Your task to perform on an android device: change the clock display to analog Image 0: 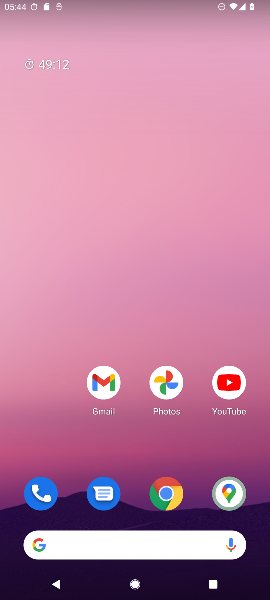
Step 0: press home button
Your task to perform on an android device: change the clock display to analog Image 1: 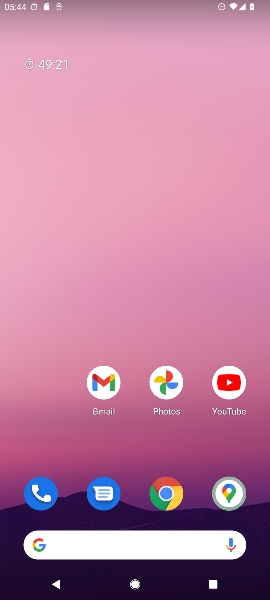
Step 1: drag from (52, 443) to (39, 143)
Your task to perform on an android device: change the clock display to analog Image 2: 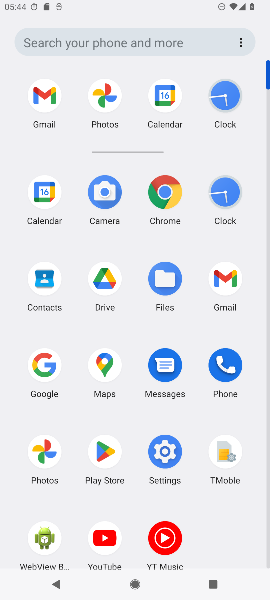
Step 2: click (231, 192)
Your task to perform on an android device: change the clock display to analog Image 3: 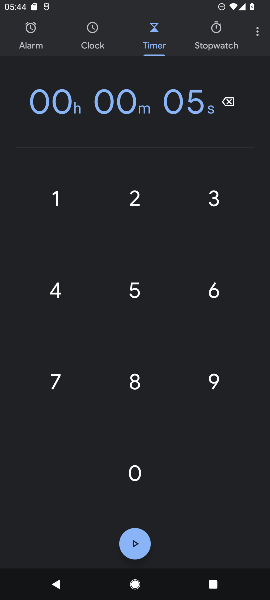
Step 3: click (259, 33)
Your task to perform on an android device: change the clock display to analog Image 4: 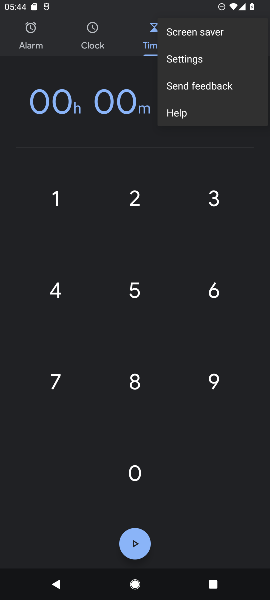
Step 4: click (213, 67)
Your task to perform on an android device: change the clock display to analog Image 5: 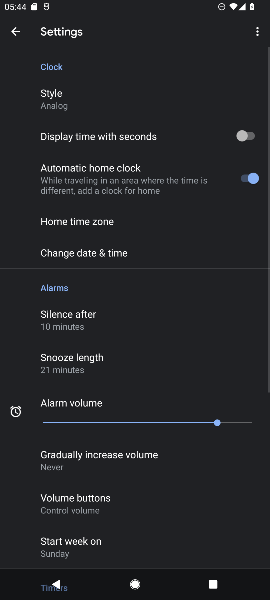
Step 5: drag from (212, 258) to (220, 143)
Your task to perform on an android device: change the clock display to analog Image 6: 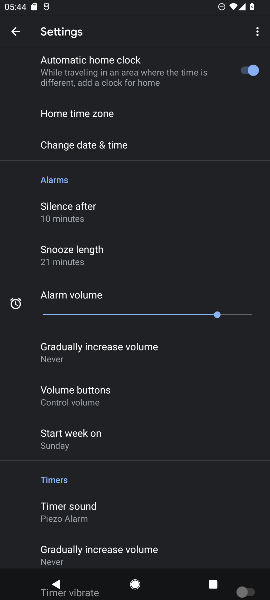
Step 6: drag from (202, 357) to (208, 244)
Your task to perform on an android device: change the clock display to analog Image 7: 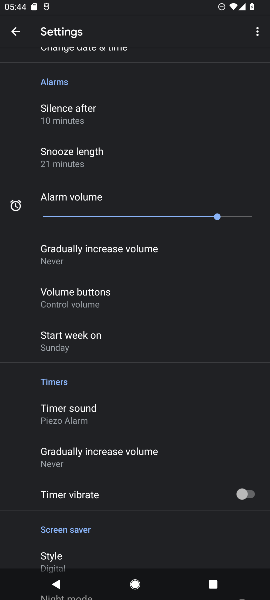
Step 7: drag from (187, 417) to (204, 289)
Your task to perform on an android device: change the clock display to analog Image 8: 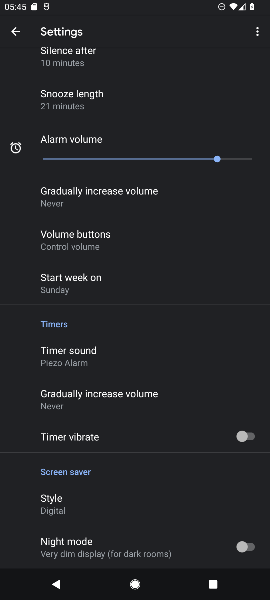
Step 8: drag from (200, 210) to (202, 297)
Your task to perform on an android device: change the clock display to analog Image 9: 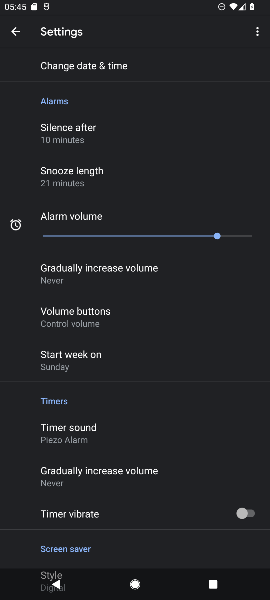
Step 9: drag from (227, 172) to (232, 274)
Your task to perform on an android device: change the clock display to analog Image 10: 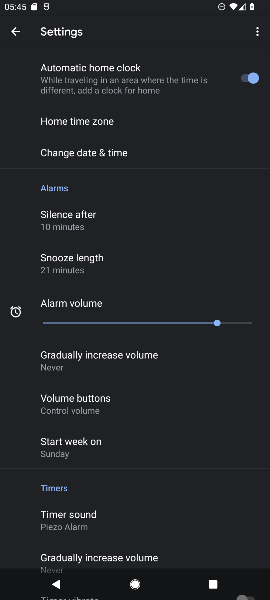
Step 10: drag from (227, 136) to (230, 236)
Your task to perform on an android device: change the clock display to analog Image 11: 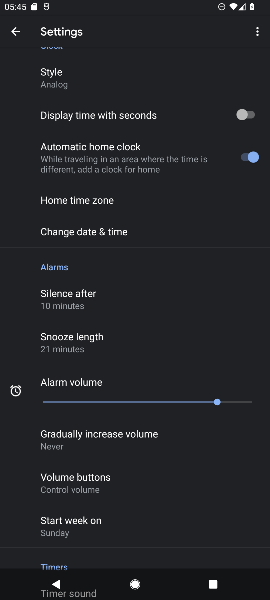
Step 11: drag from (204, 102) to (209, 238)
Your task to perform on an android device: change the clock display to analog Image 12: 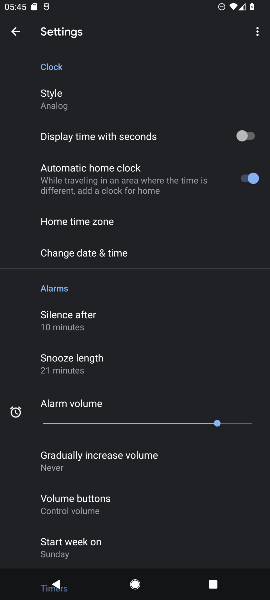
Step 12: click (71, 104)
Your task to perform on an android device: change the clock display to analog Image 13: 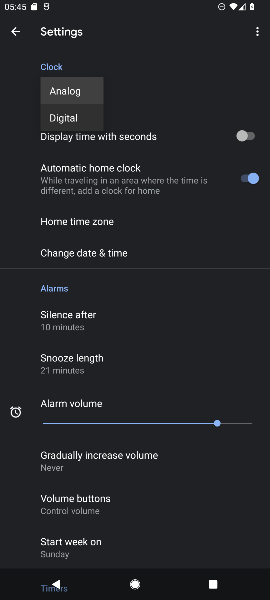
Step 13: click (80, 92)
Your task to perform on an android device: change the clock display to analog Image 14: 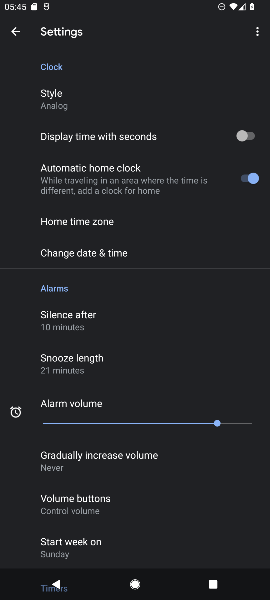
Step 14: task complete